Your task to perform on an android device: Show me popular games on the Play Store Image 0: 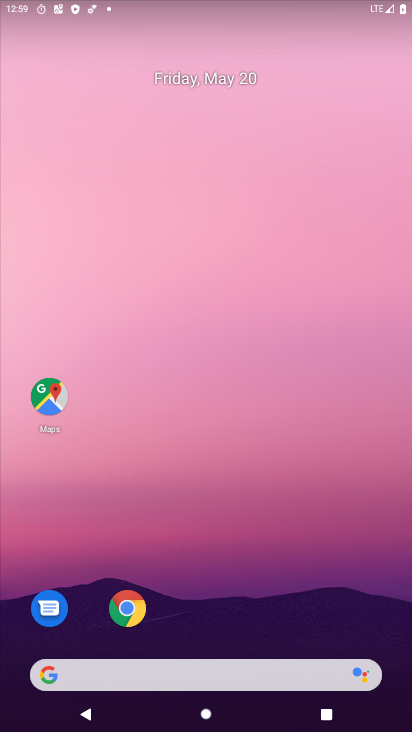
Step 0: drag from (349, 570) to (352, 70)
Your task to perform on an android device: Show me popular games on the Play Store Image 1: 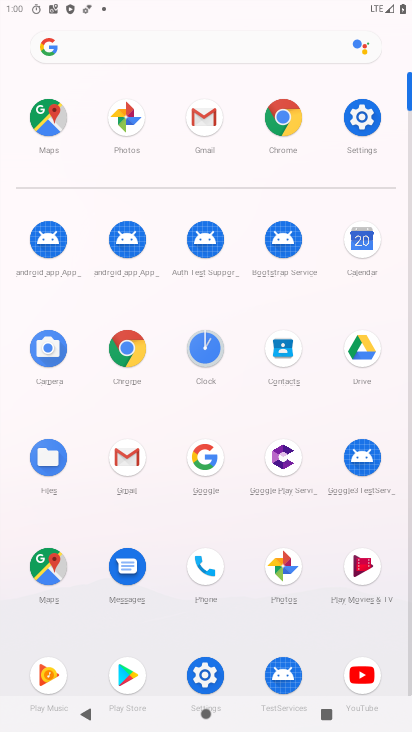
Step 1: drag from (305, 650) to (312, 274)
Your task to perform on an android device: Show me popular games on the Play Store Image 2: 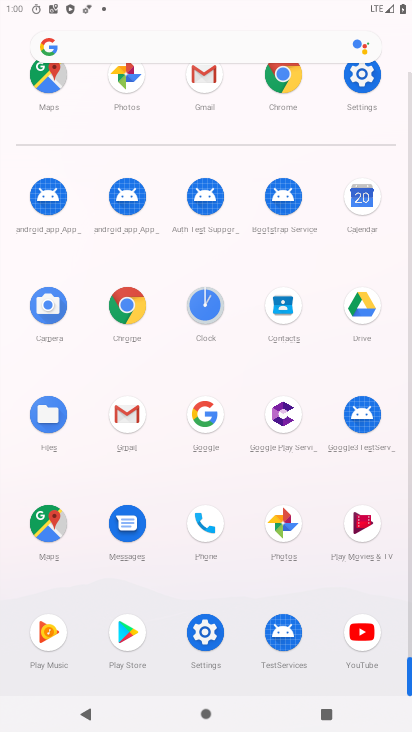
Step 2: click (136, 643)
Your task to perform on an android device: Show me popular games on the Play Store Image 3: 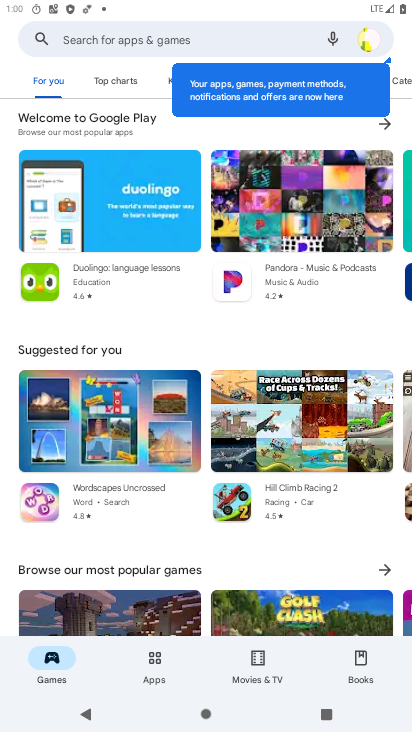
Step 3: click (112, 76)
Your task to perform on an android device: Show me popular games on the Play Store Image 4: 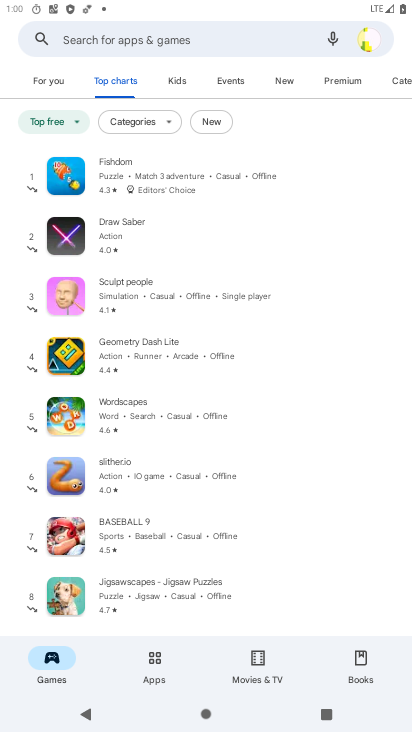
Step 4: task complete